Your task to perform on an android device: allow cookies in the chrome app Image 0: 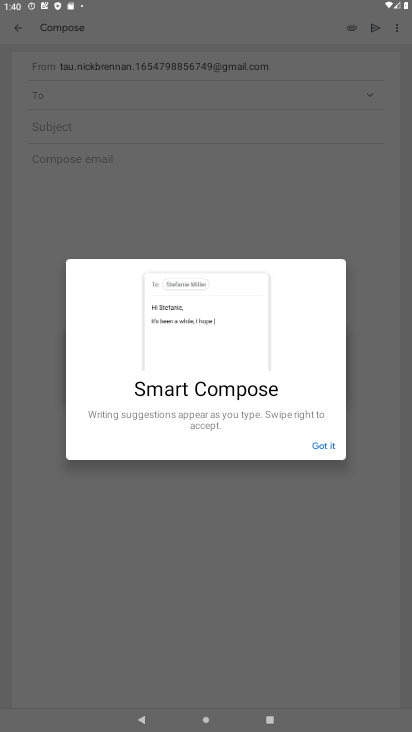
Step 0: press home button
Your task to perform on an android device: allow cookies in the chrome app Image 1: 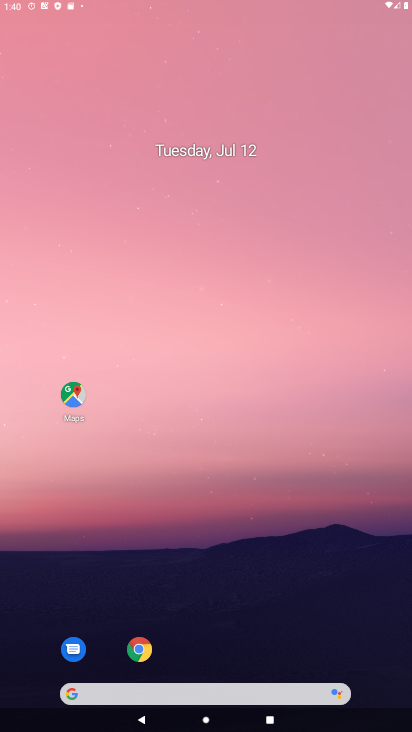
Step 1: drag from (340, 490) to (319, 14)
Your task to perform on an android device: allow cookies in the chrome app Image 2: 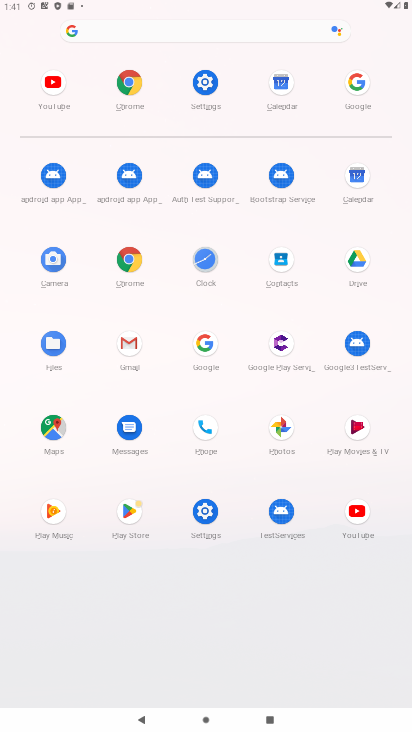
Step 2: click (123, 254)
Your task to perform on an android device: allow cookies in the chrome app Image 3: 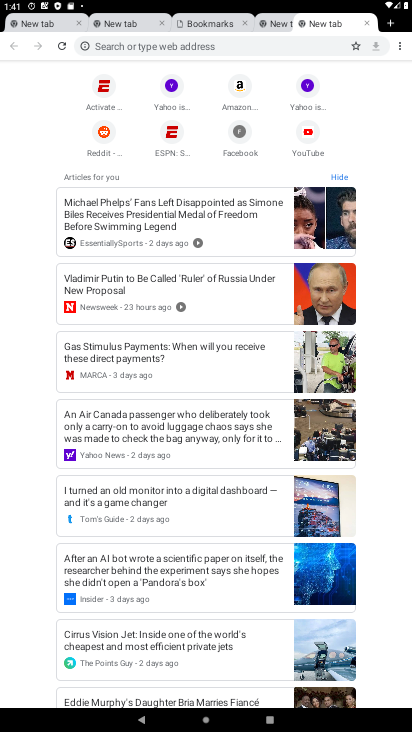
Step 3: click (403, 42)
Your task to perform on an android device: allow cookies in the chrome app Image 4: 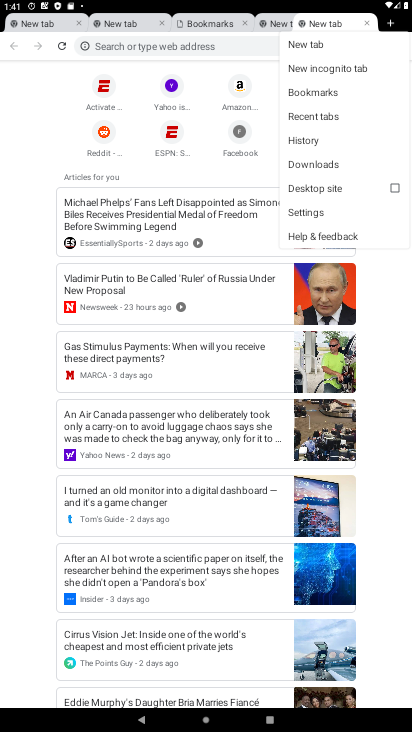
Step 4: click (321, 142)
Your task to perform on an android device: allow cookies in the chrome app Image 5: 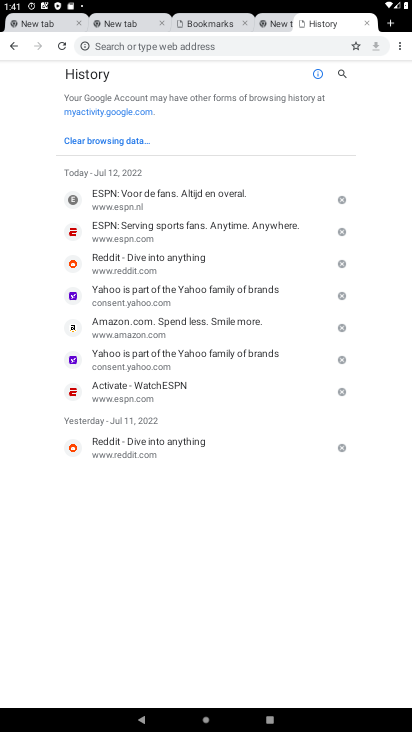
Step 5: click (101, 140)
Your task to perform on an android device: allow cookies in the chrome app Image 6: 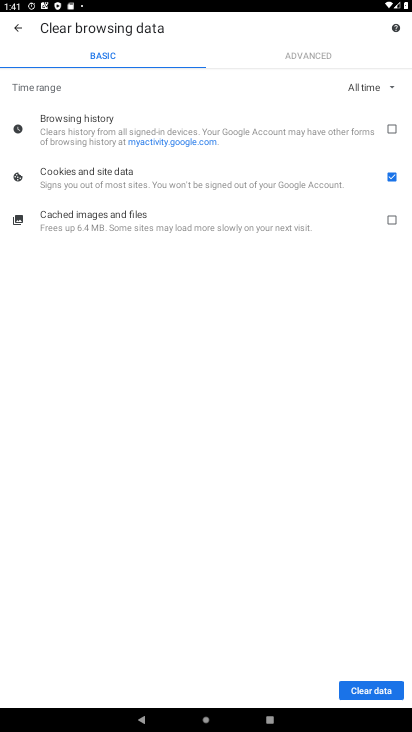
Step 6: task complete